Your task to perform on an android device: change keyboard looks Image 0: 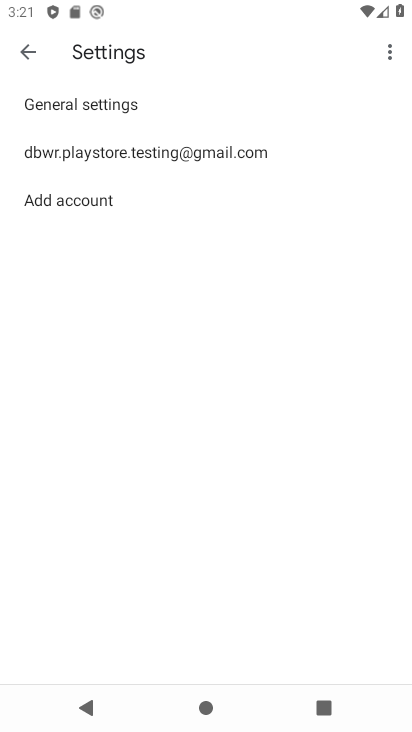
Step 0: press home button
Your task to perform on an android device: change keyboard looks Image 1: 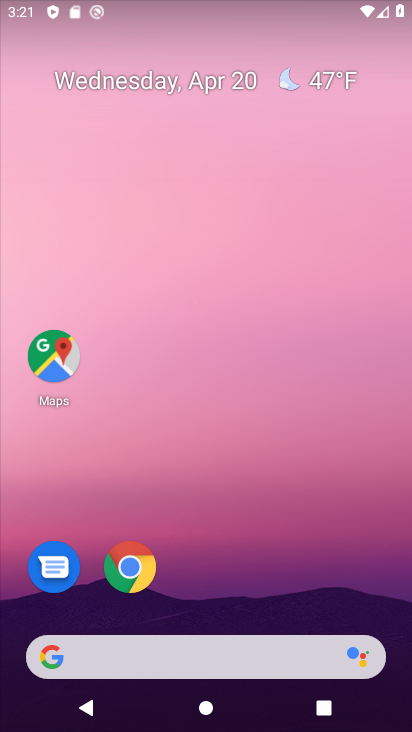
Step 1: drag from (215, 612) to (149, 100)
Your task to perform on an android device: change keyboard looks Image 2: 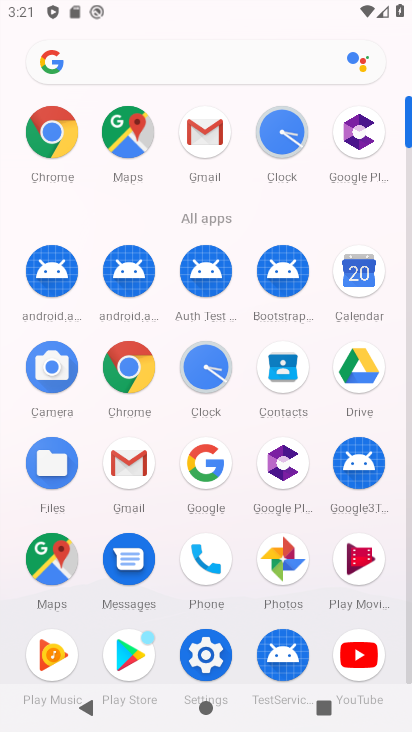
Step 2: click (213, 650)
Your task to perform on an android device: change keyboard looks Image 3: 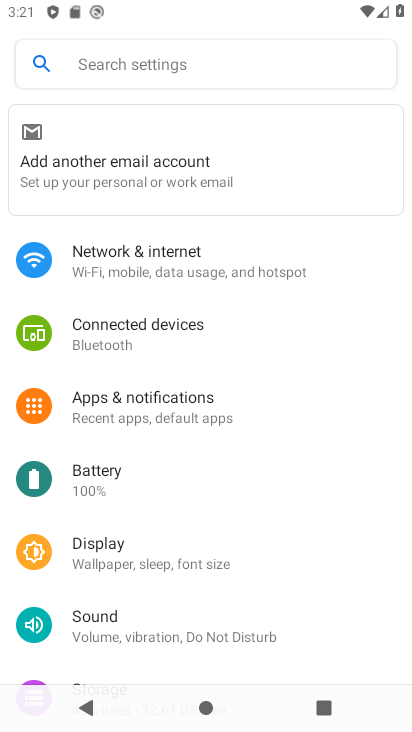
Step 3: drag from (179, 629) to (154, 31)
Your task to perform on an android device: change keyboard looks Image 4: 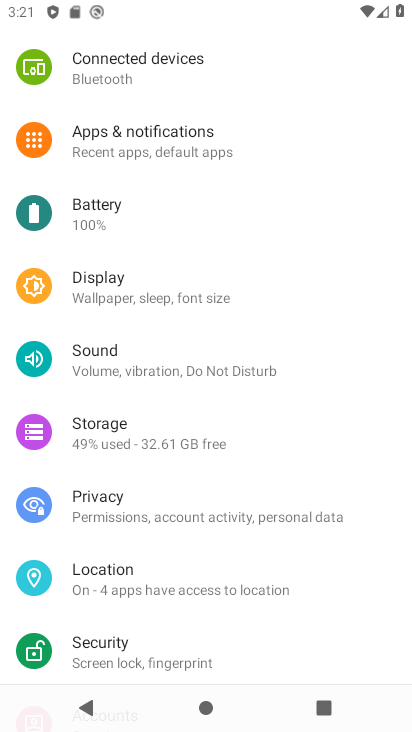
Step 4: drag from (141, 627) to (246, 19)
Your task to perform on an android device: change keyboard looks Image 5: 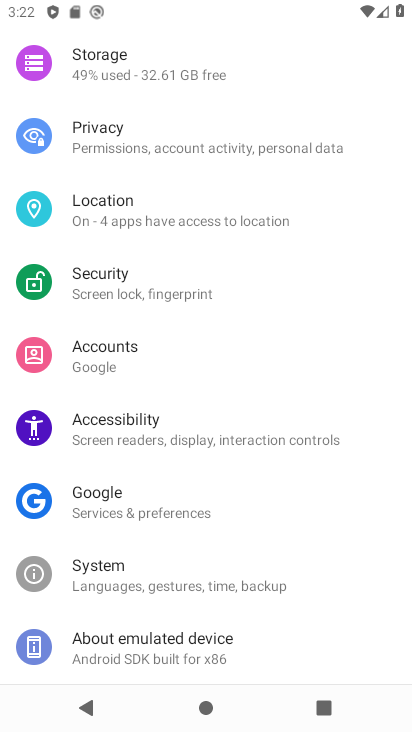
Step 5: click (111, 577)
Your task to perform on an android device: change keyboard looks Image 6: 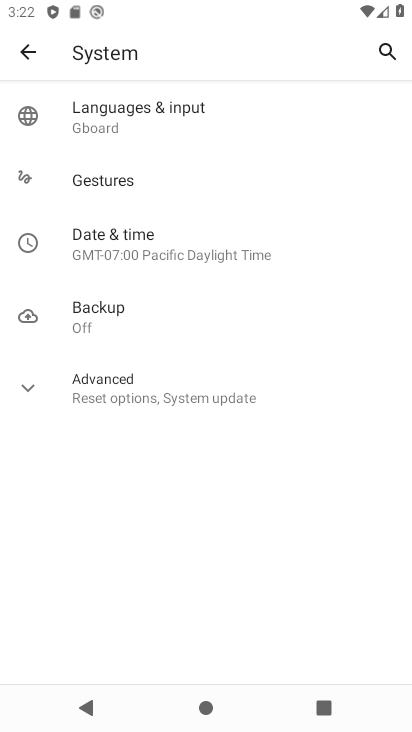
Step 6: click (118, 106)
Your task to perform on an android device: change keyboard looks Image 7: 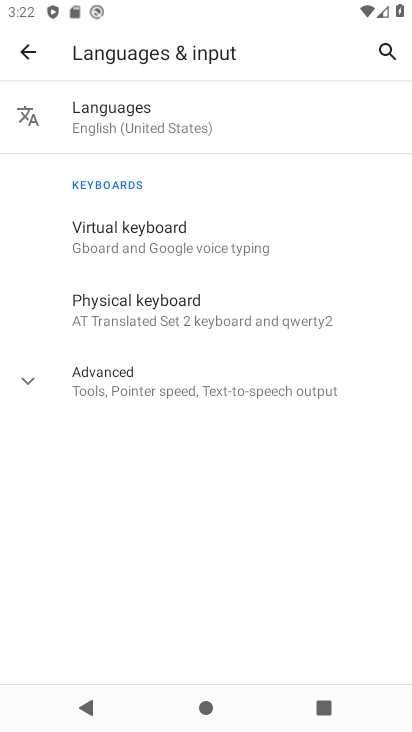
Step 7: click (128, 233)
Your task to perform on an android device: change keyboard looks Image 8: 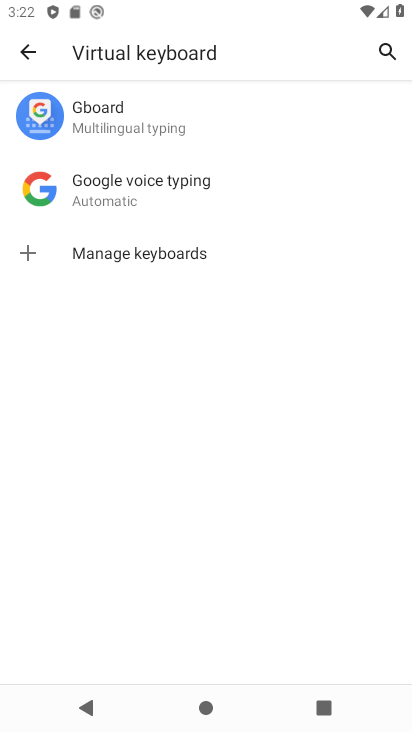
Step 8: click (86, 134)
Your task to perform on an android device: change keyboard looks Image 9: 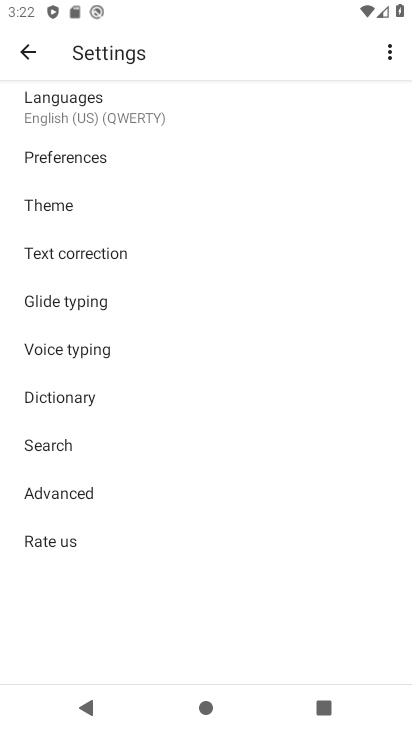
Step 9: click (86, 134)
Your task to perform on an android device: change keyboard looks Image 10: 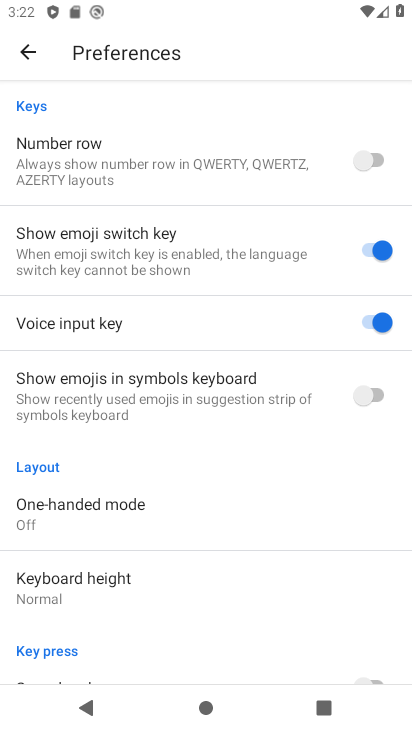
Step 10: click (28, 71)
Your task to perform on an android device: change keyboard looks Image 11: 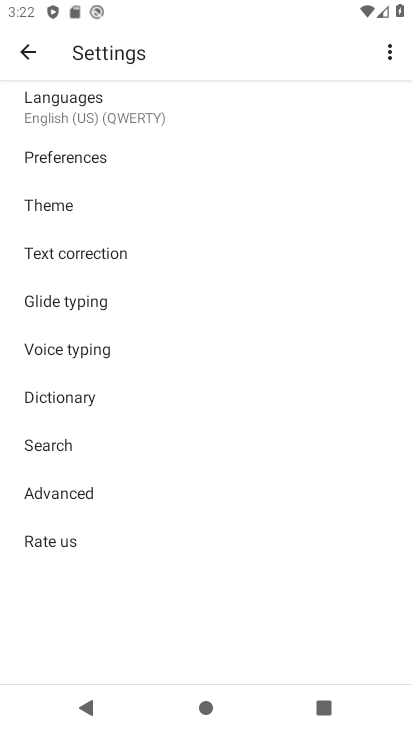
Step 11: click (116, 199)
Your task to perform on an android device: change keyboard looks Image 12: 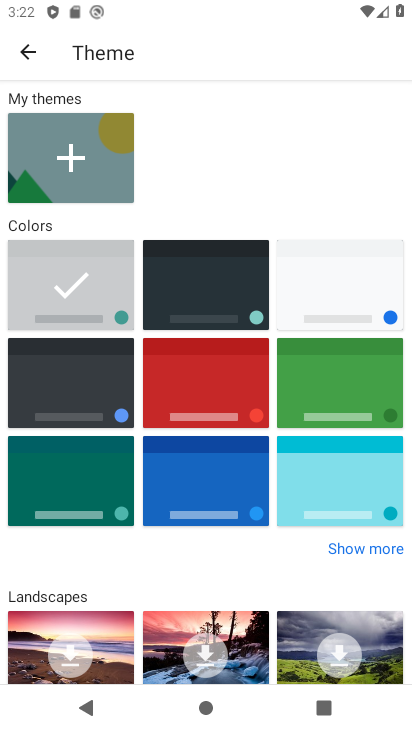
Step 12: click (102, 486)
Your task to perform on an android device: change keyboard looks Image 13: 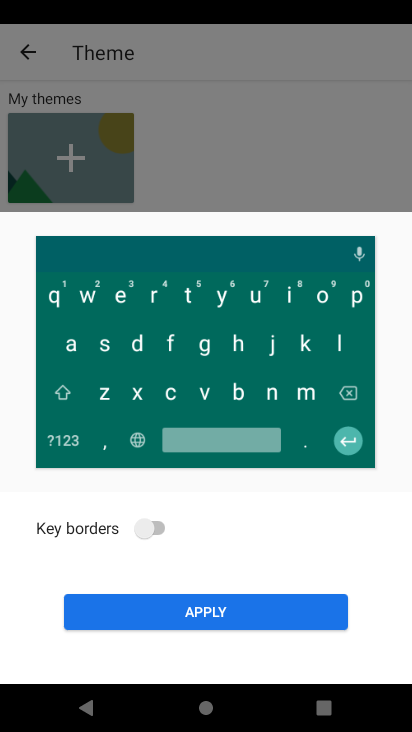
Step 13: click (150, 531)
Your task to perform on an android device: change keyboard looks Image 14: 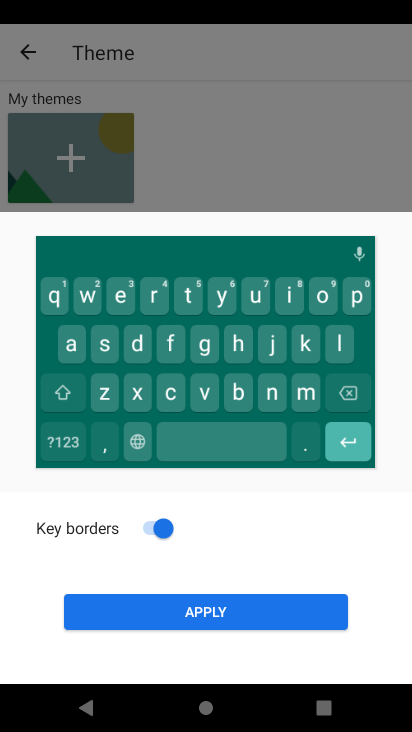
Step 14: click (237, 614)
Your task to perform on an android device: change keyboard looks Image 15: 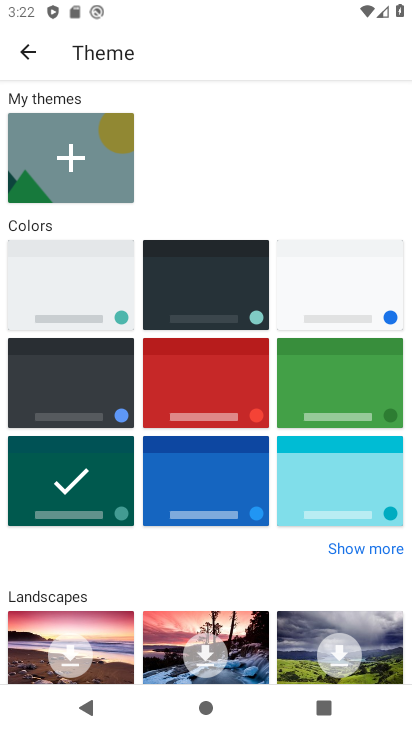
Step 15: task complete